Your task to perform on an android device: set default search engine in the chrome app Image 0: 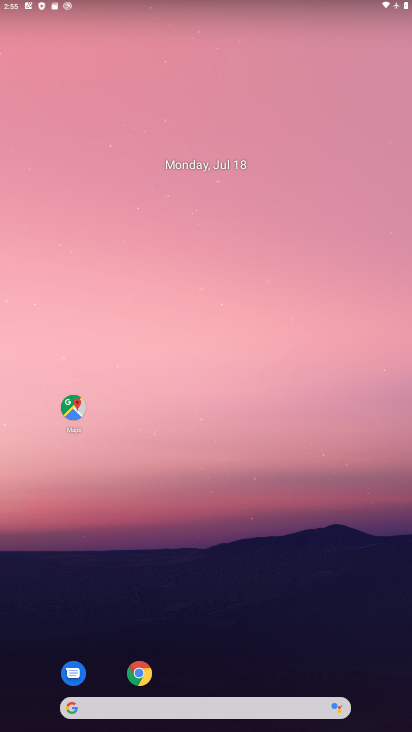
Step 0: drag from (274, 653) to (244, 269)
Your task to perform on an android device: set default search engine in the chrome app Image 1: 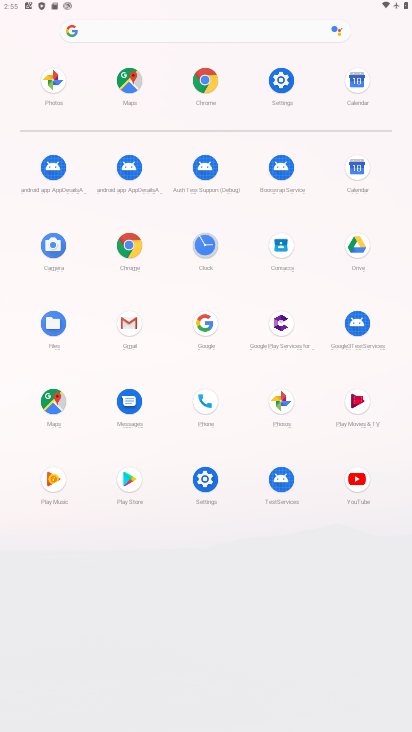
Step 1: click (198, 77)
Your task to perform on an android device: set default search engine in the chrome app Image 2: 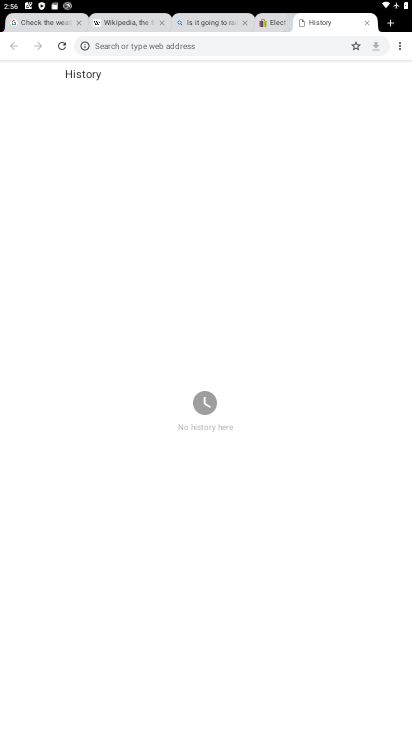
Step 2: click (399, 43)
Your task to perform on an android device: set default search engine in the chrome app Image 3: 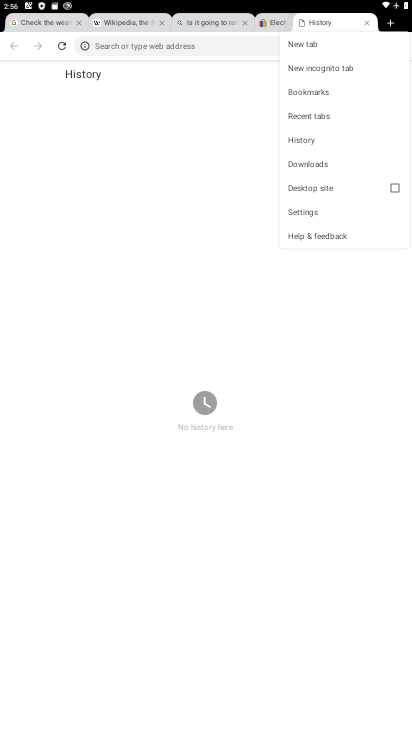
Step 3: click (316, 209)
Your task to perform on an android device: set default search engine in the chrome app Image 4: 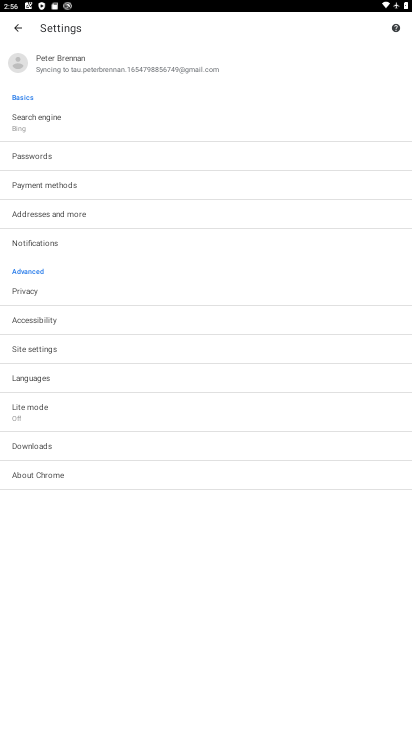
Step 4: click (73, 118)
Your task to perform on an android device: set default search engine in the chrome app Image 5: 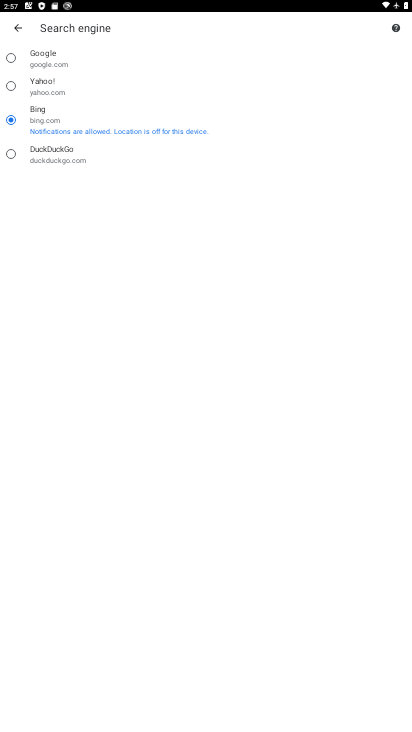
Step 5: task complete